Your task to perform on an android device: Search for sushi restaurants on Maps Image 0: 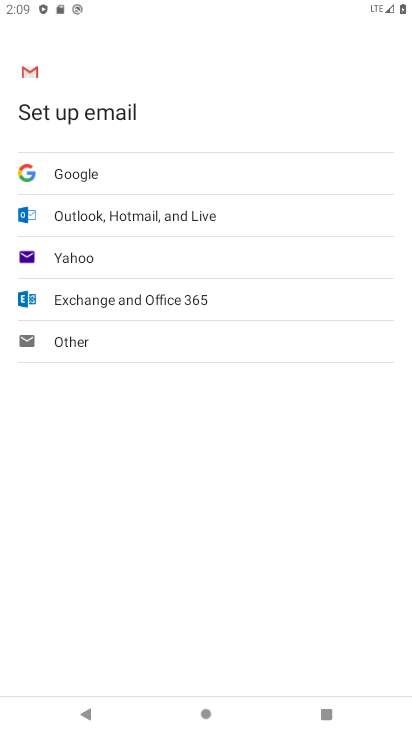
Step 0: press home button
Your task to perform on an android device: Search for sushi restaurants on Maps Image 1: 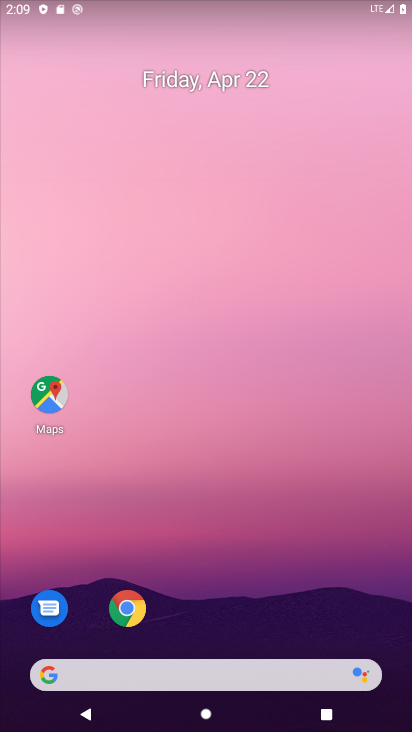
Step 1: drag from (177, 707) to (294, 121)
Your task to perform on an android device: Search for sushi restaurants on Maps Image 2: 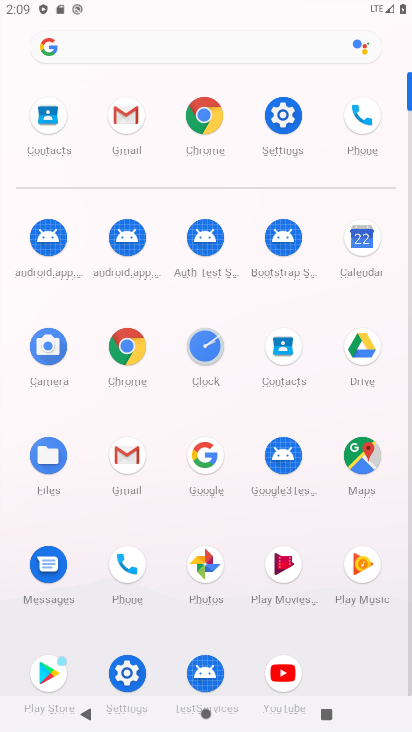
Step 2: click (363, 454)
Your task to perform on an android device: Search for sushi restaurants on Maps Image 3: 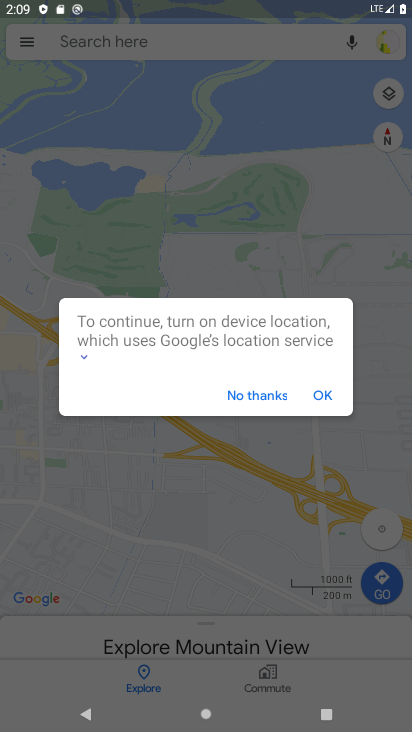
Step 3: click (254, 394)
Your task to perform on an android device: Search for sushi restaurants on Maps Image 4: 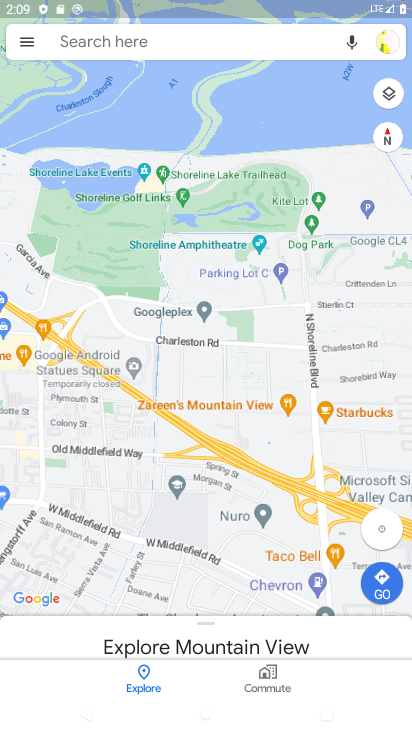
Step 4: click (173, 40)
Your task to perform on an android device: Search for sushi restaurants on Maps Image 5: 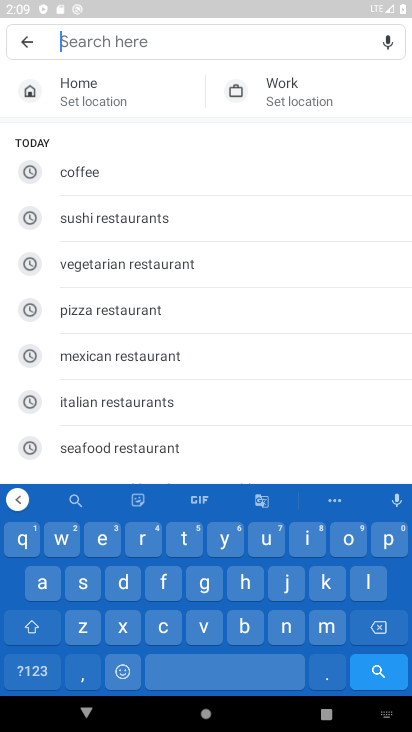
Step 5: click (119, 217)
Your task to perform on an android device: Search for sushi restaurants on Maps Image 6: 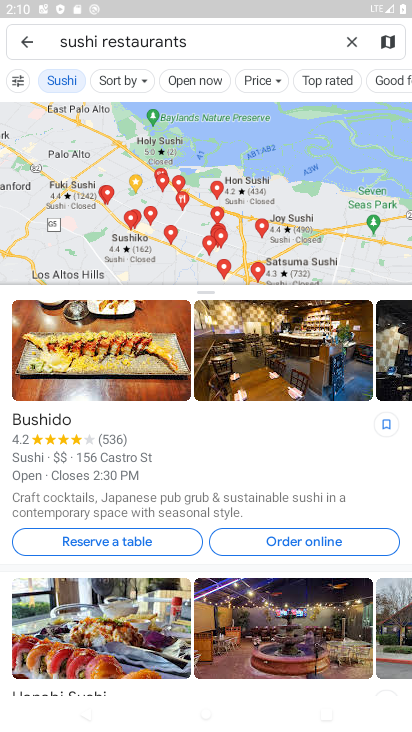
Step 6: click (187, 240)
Your task to perform on an android device: Search for sushi restaurants on Maps Image 7: 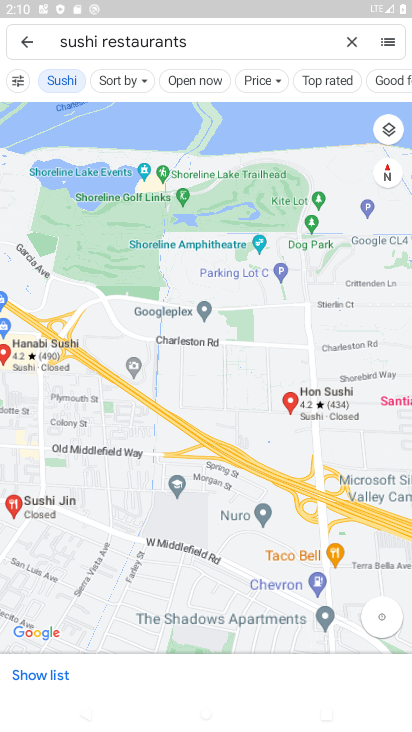
Step 7: task complete